Your task to perform on an android device: clear all cookies in the chrome app Image 0: 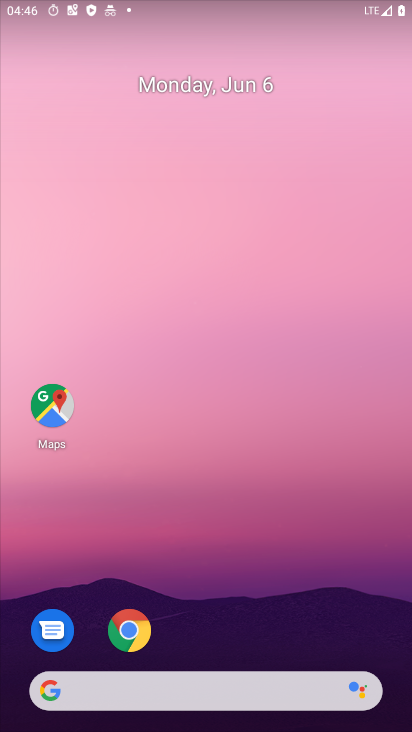
Step 0: drag from (236, 598) to (248, 152)
Your task to perform on an android device: clear all cookies in the chrome app Image 1: 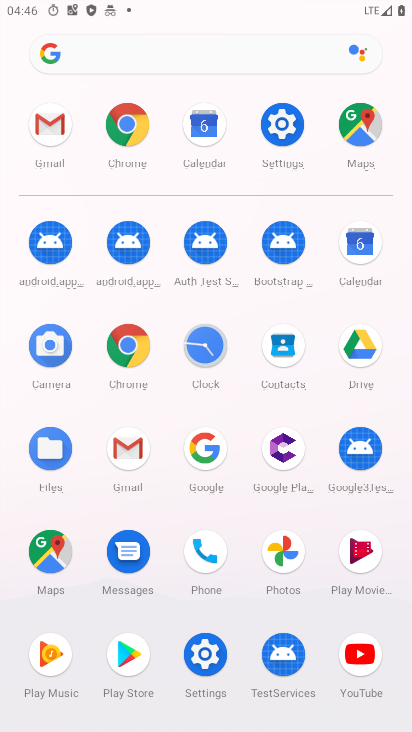
Step 1: click (133, 345)
Your task to perform on an android device: clear all cookies in the chrome app Image 2: 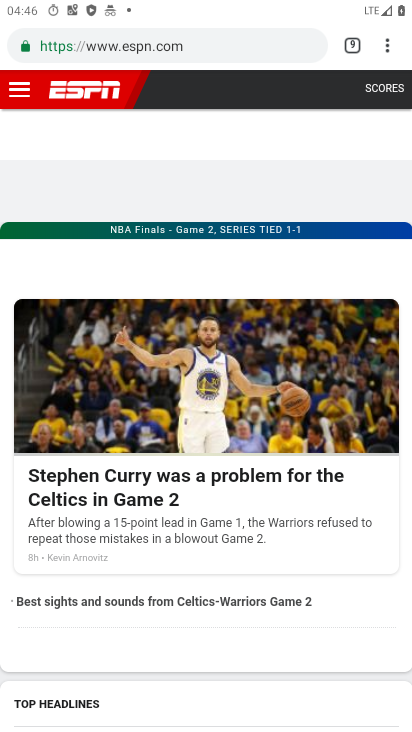
Step 2: drag from (382, 44) to (215, 555)
Your task to perform on an android device: clear all cookies in the chrome app Image 3: 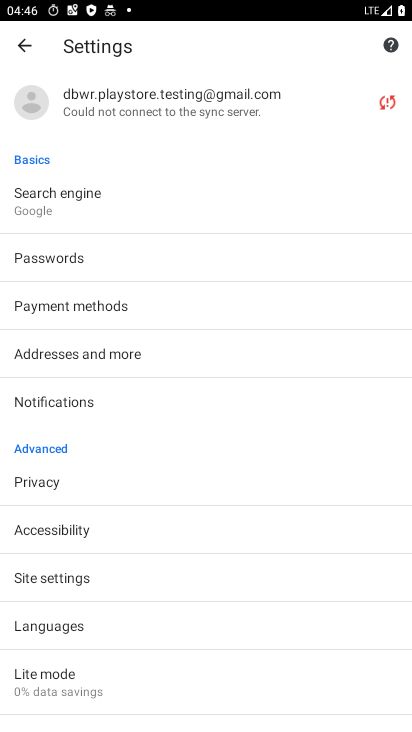
Step 3: click (29, 476)
Your task to perform on an android device: clear all cookies in the chrome app Image 4: 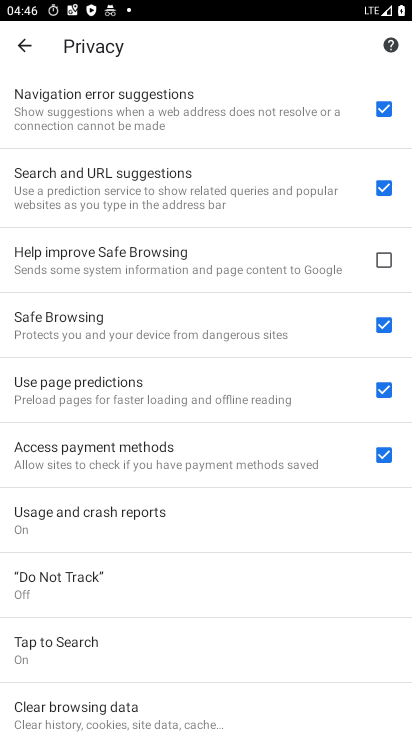
Step 4: drag from (176, 630) to (224, 208)
Your task to perform on an android device: clear all cookies in the chrome app Image 5: 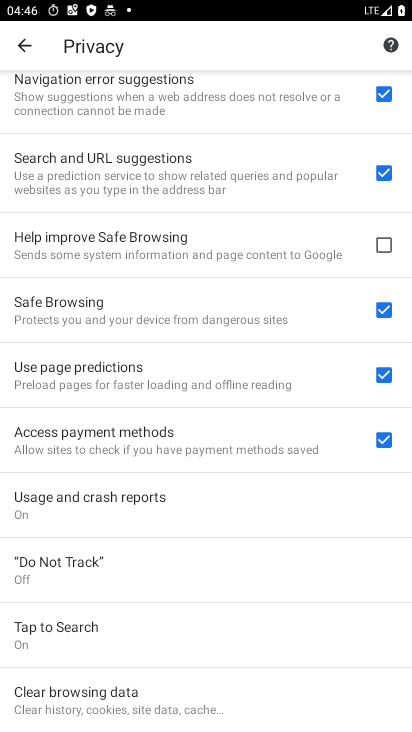
Step 5: click (77, 707)
Your task to perform on an android device: clear all cookies in the chrome app Image 6: 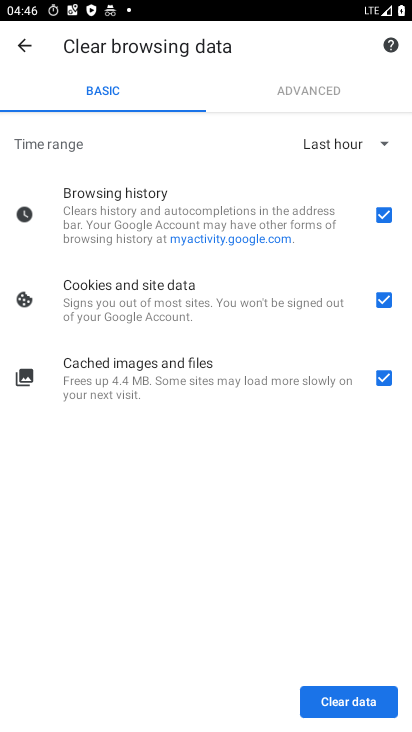
Step 6: click (366, 705)
Your task to perform on an android device: clear all cookies in the chrome app Image 7: 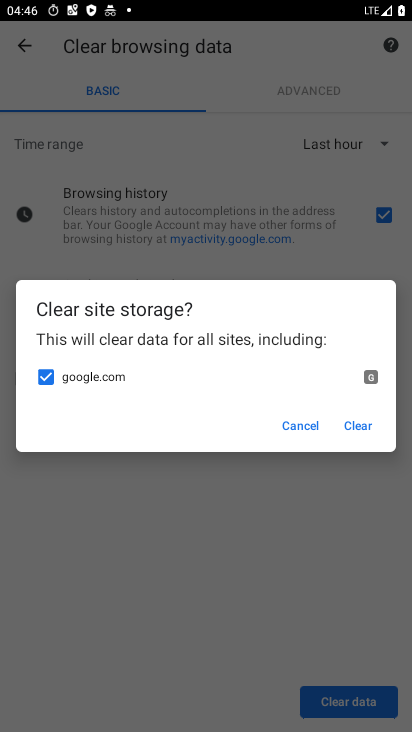
Step 7: click (351, 419)
Your task to perform on an android device: clear all cookies in the chrome app Image 8: 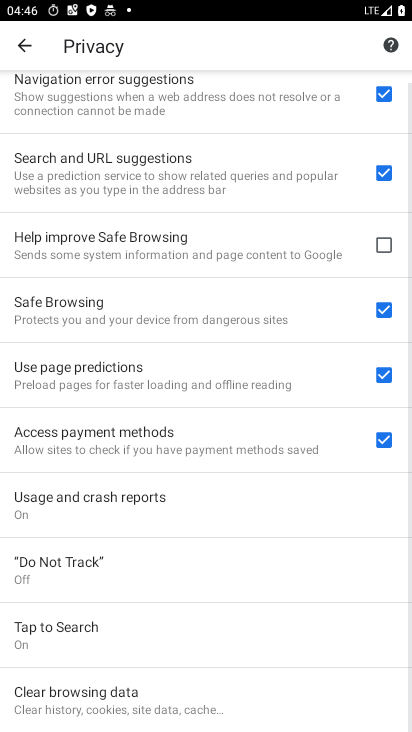
Step 8: task complete